Your task to perform on an android device: Search for seafood restaurants on Google Maps Image 0: 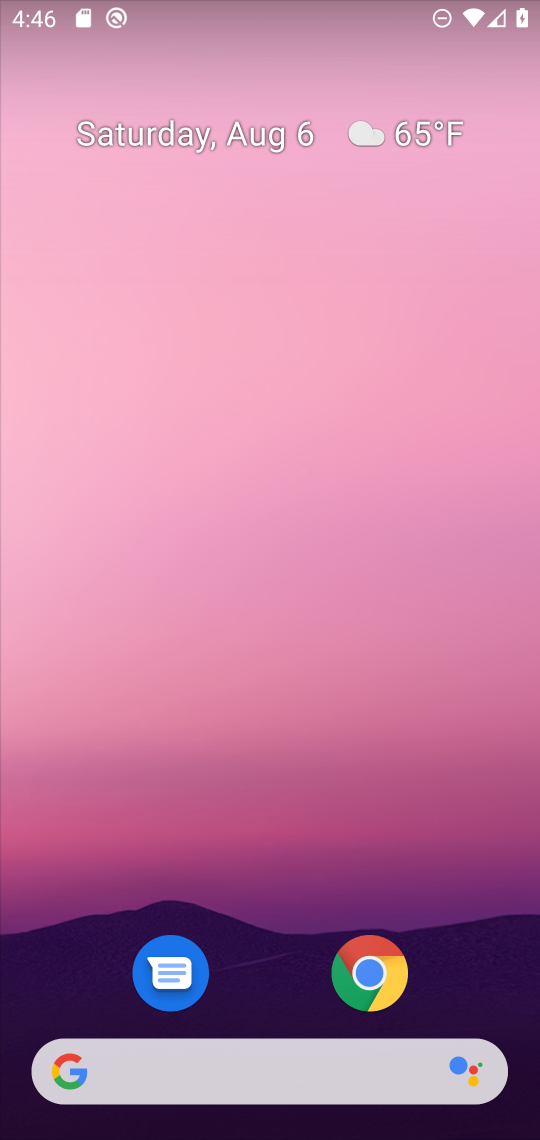
Step 0: drag from (292, 849) to (295, 39)
Your task to perform on an android device: Search for seafood restaurants on Google Maps Image 1: 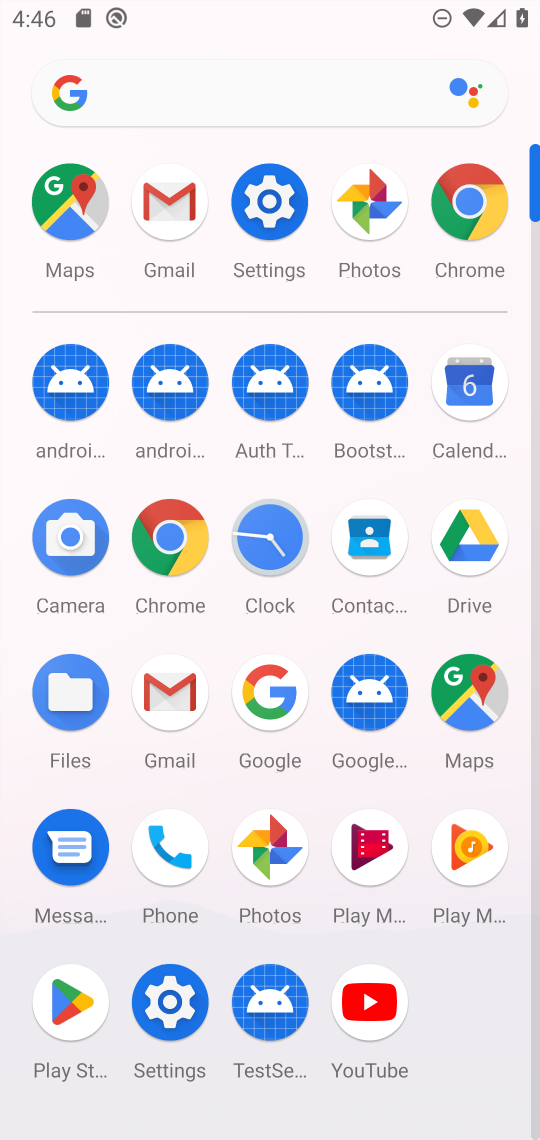
Step 1: click (464, 692)
Your task to perform on an android device: Search for seafood restaurants on Google Maps Image 2: 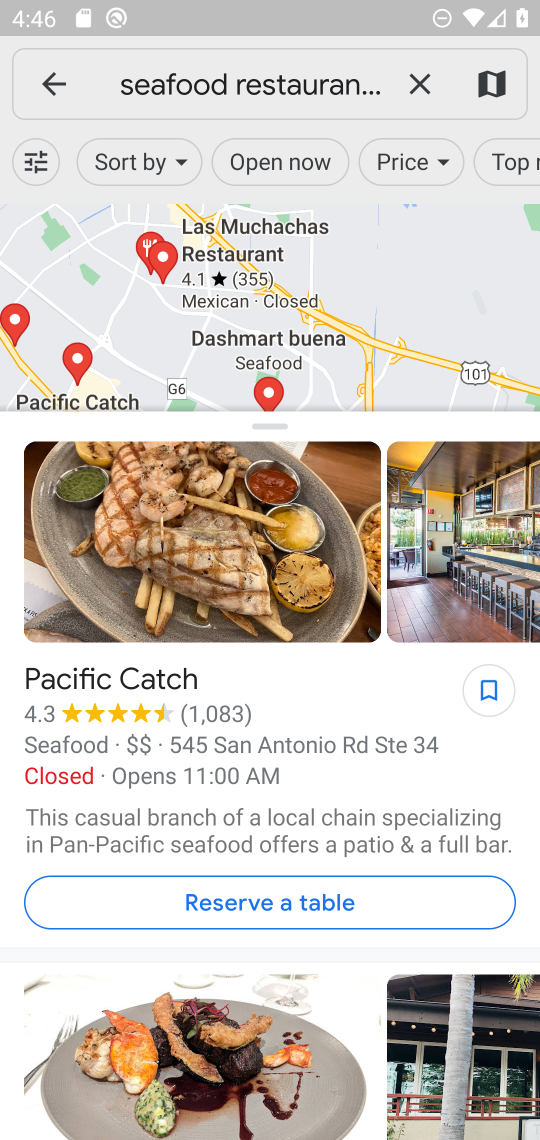
Step 2: task complete